Your task to perform on an android device: change the upload size in google photos Image 0: 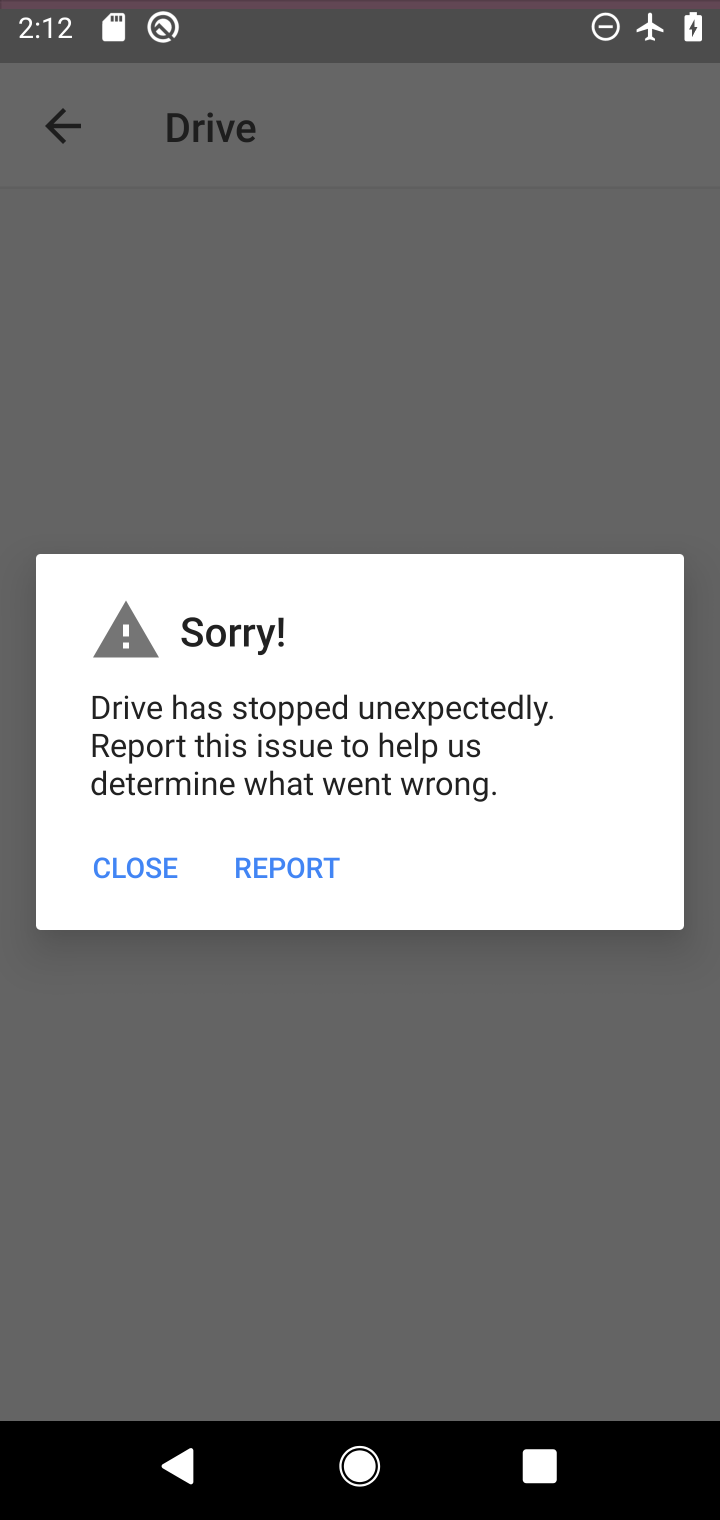
Step 0: press home button
Your task to perform on an android device: change the upload size in google photos Image 1: 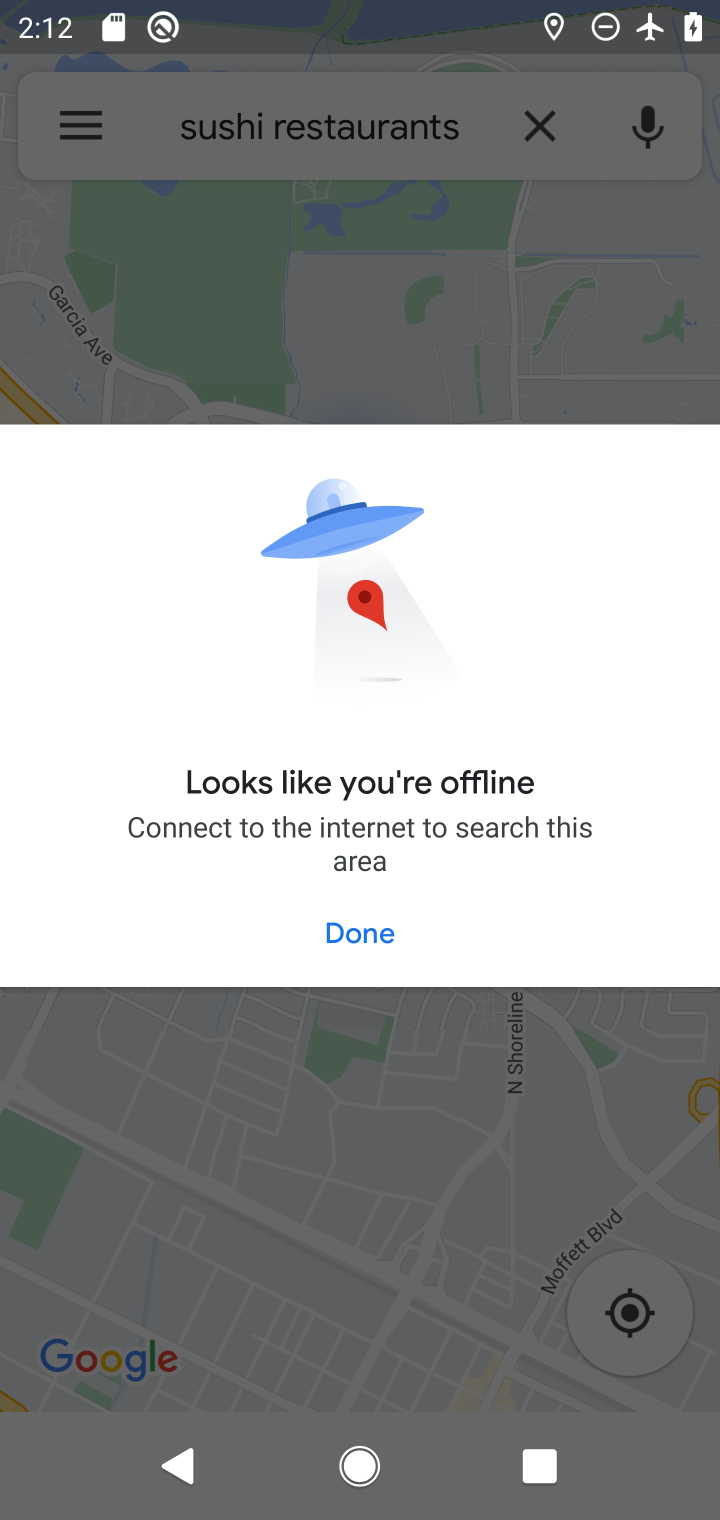
Step 1: press home button
Your task to perform on an android device: change the upload size in google photos Image 2: 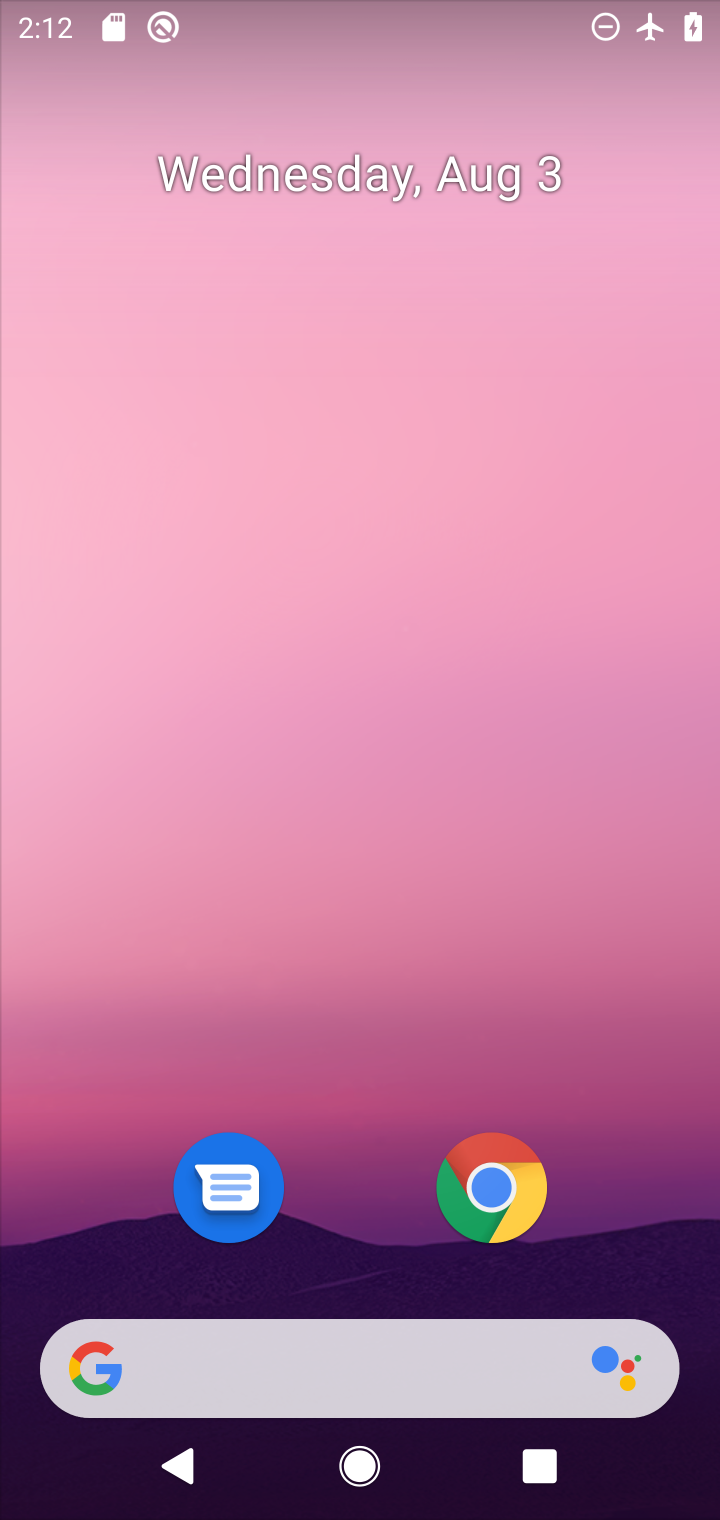
Step 2: drag from (381, 1136) to (441, 103)
Your task to perform on an android device: change the upload size in google photos Image 3: 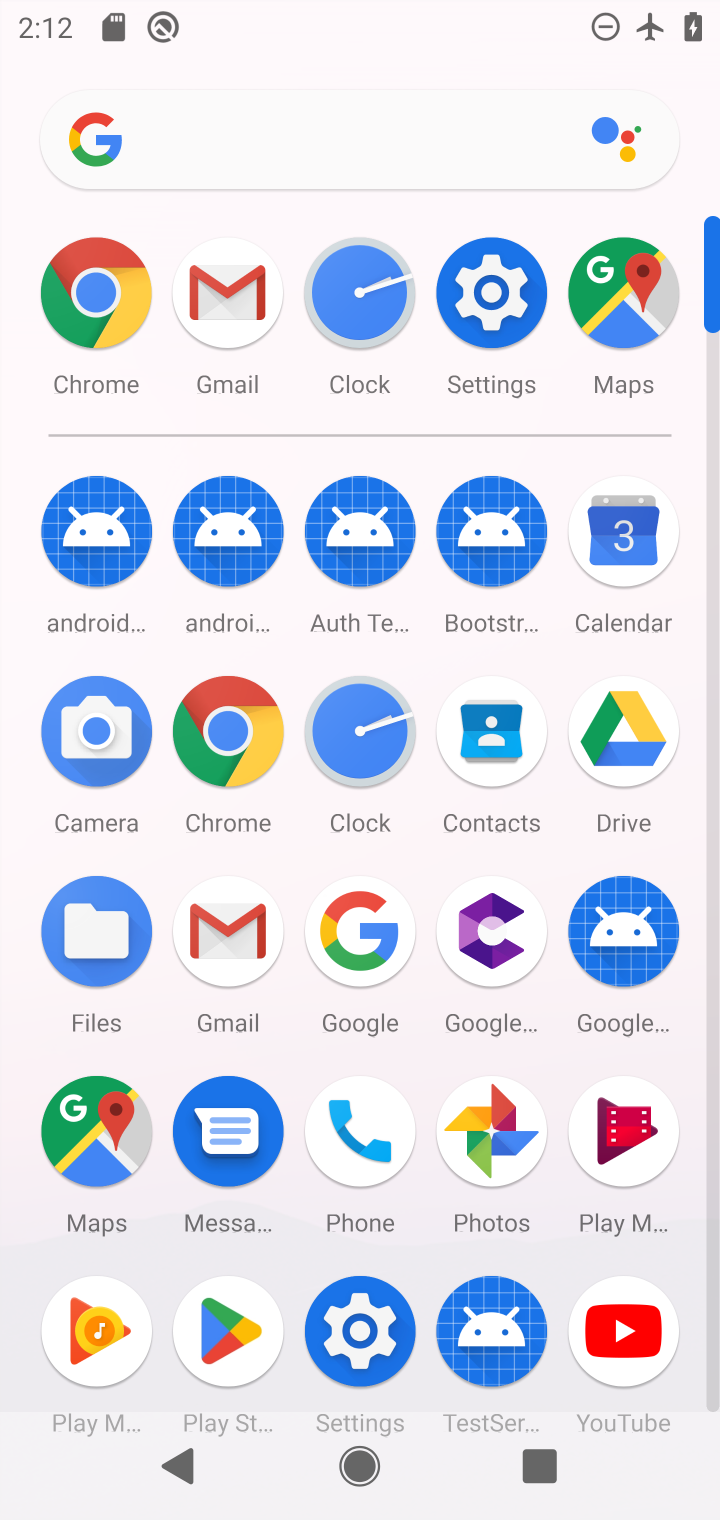
Step 3: click (477, 1124)
Your task to perform on an android device: change the upload size in google photos Image 4: 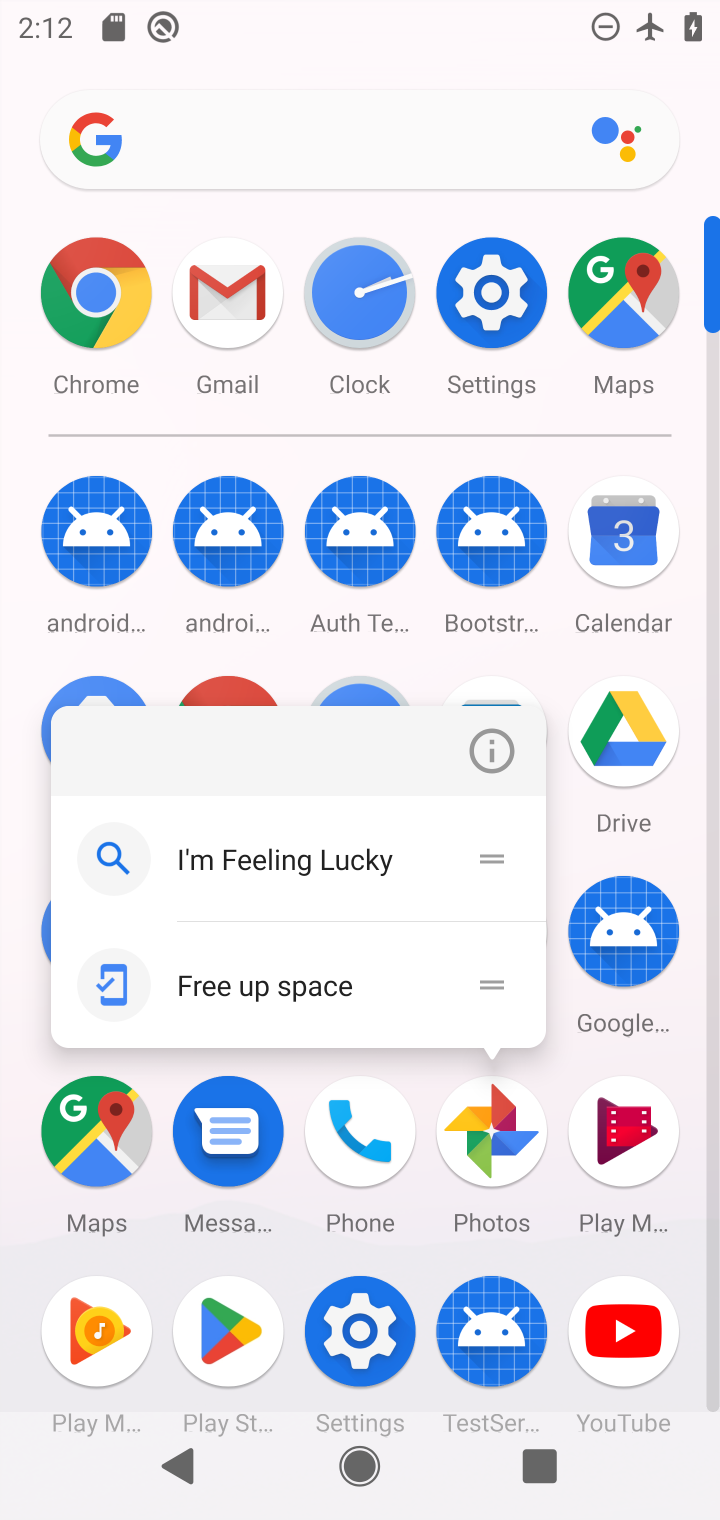
Step 4: click (477, 1114)
Your task to perform on an android device: change the upload size in google photos Image 5: 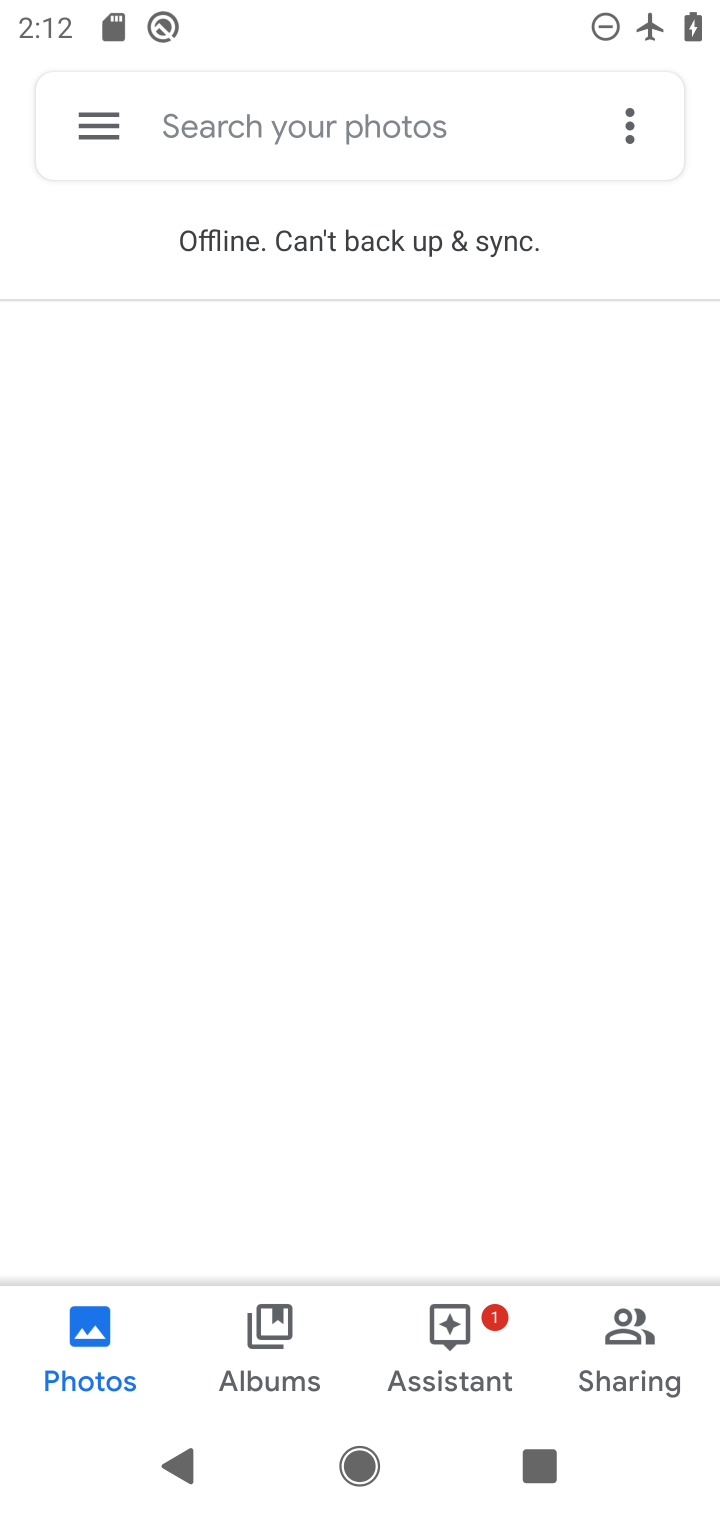
Step 5: click (91, 130)
Your task to perform on an android device: change the upload size in google photos Image 6: 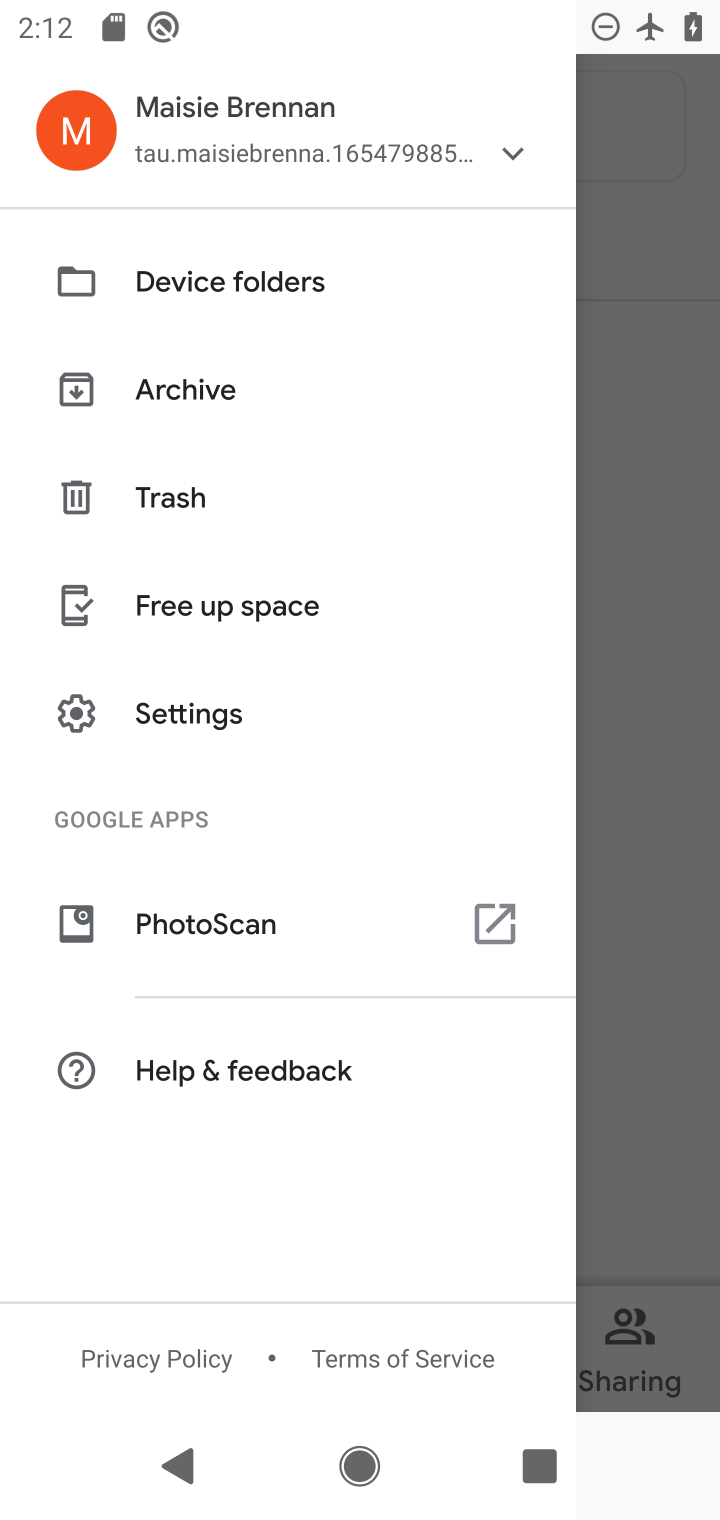
Step 6: click (190, 703)
Your task to perform on an android device: change the upload size in google photos Image 7: 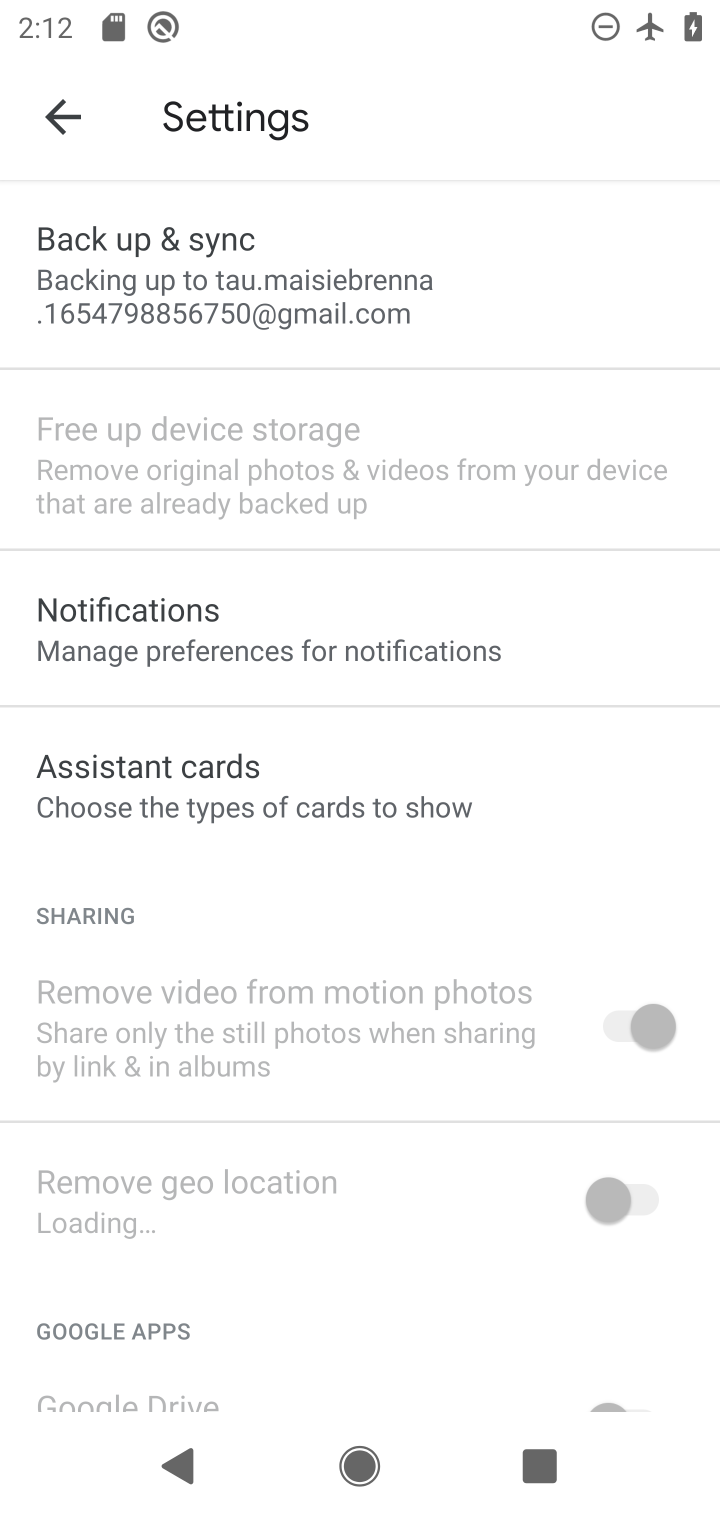
Step 7: drag from (371, 1115) to (415, 374)
Your task to perform on an android device: change the upload size in google photos Image 8: 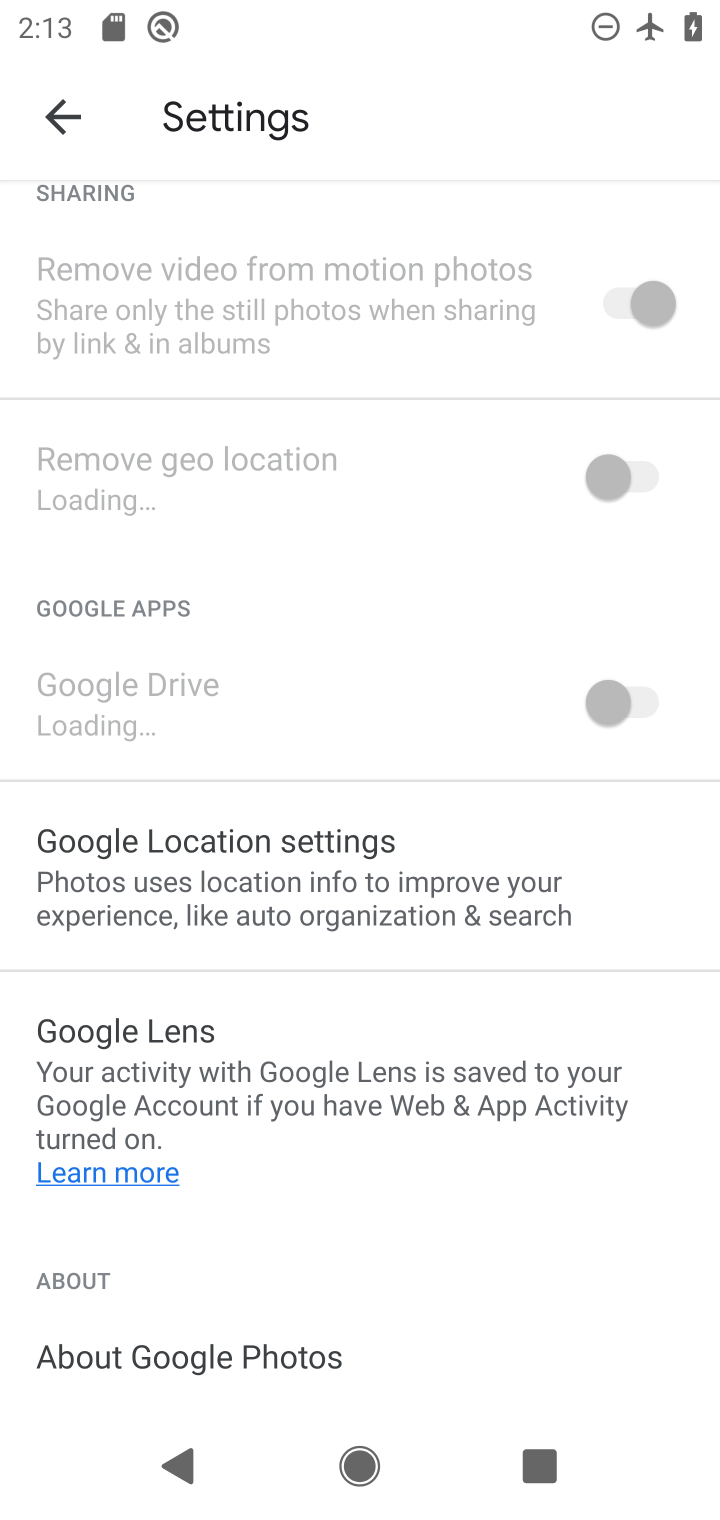
Step 8: drag from (395, 528) to (398, 1027)
Your task to perform on an android device: change the upload size in google photos Image 9: 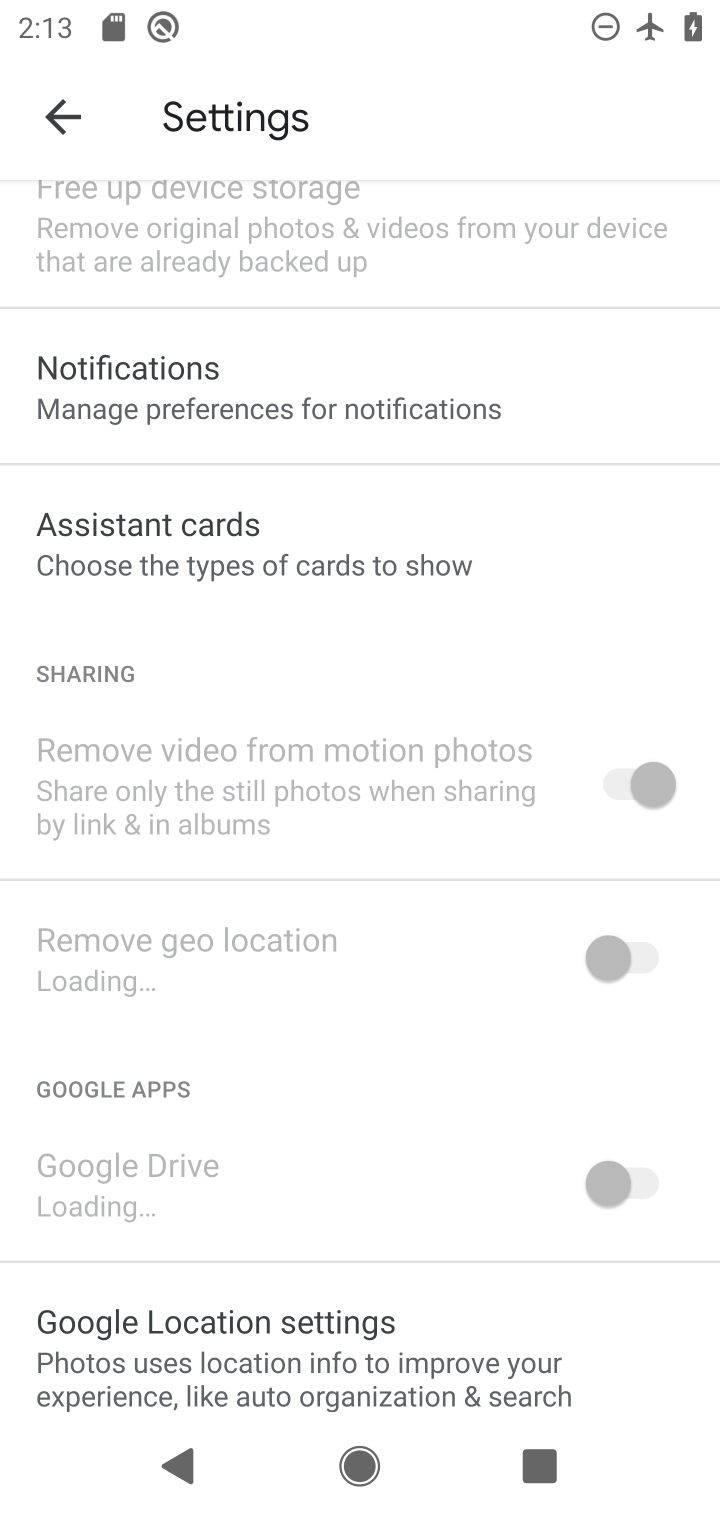
Step 9: drag from (330, 465) to (298, 1176)
Your task to perform on an android device: change the upload size in google photos Image 10: 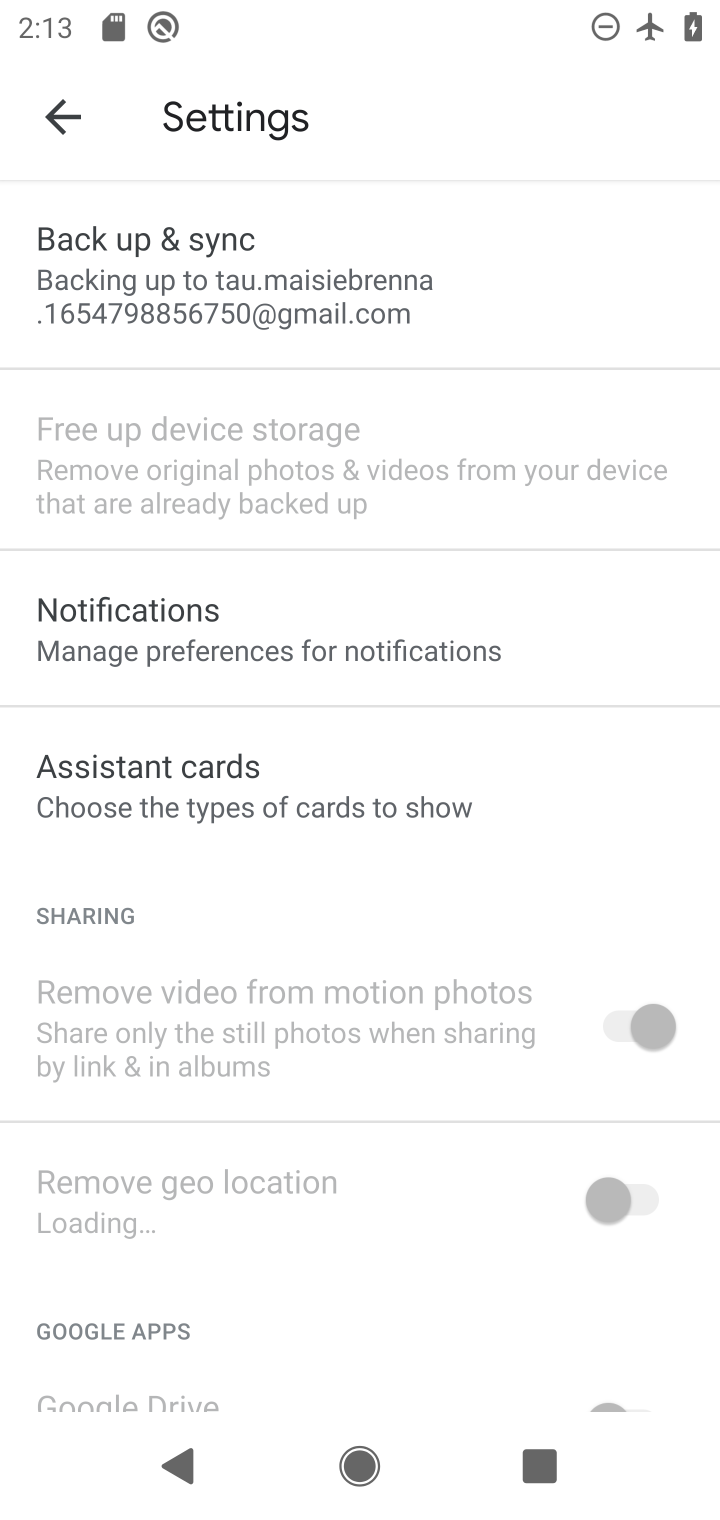
Step 10: drag from (346, 707) to (328, 811)
Your task to perform on an android device: change the upload size in google photos Image 11: 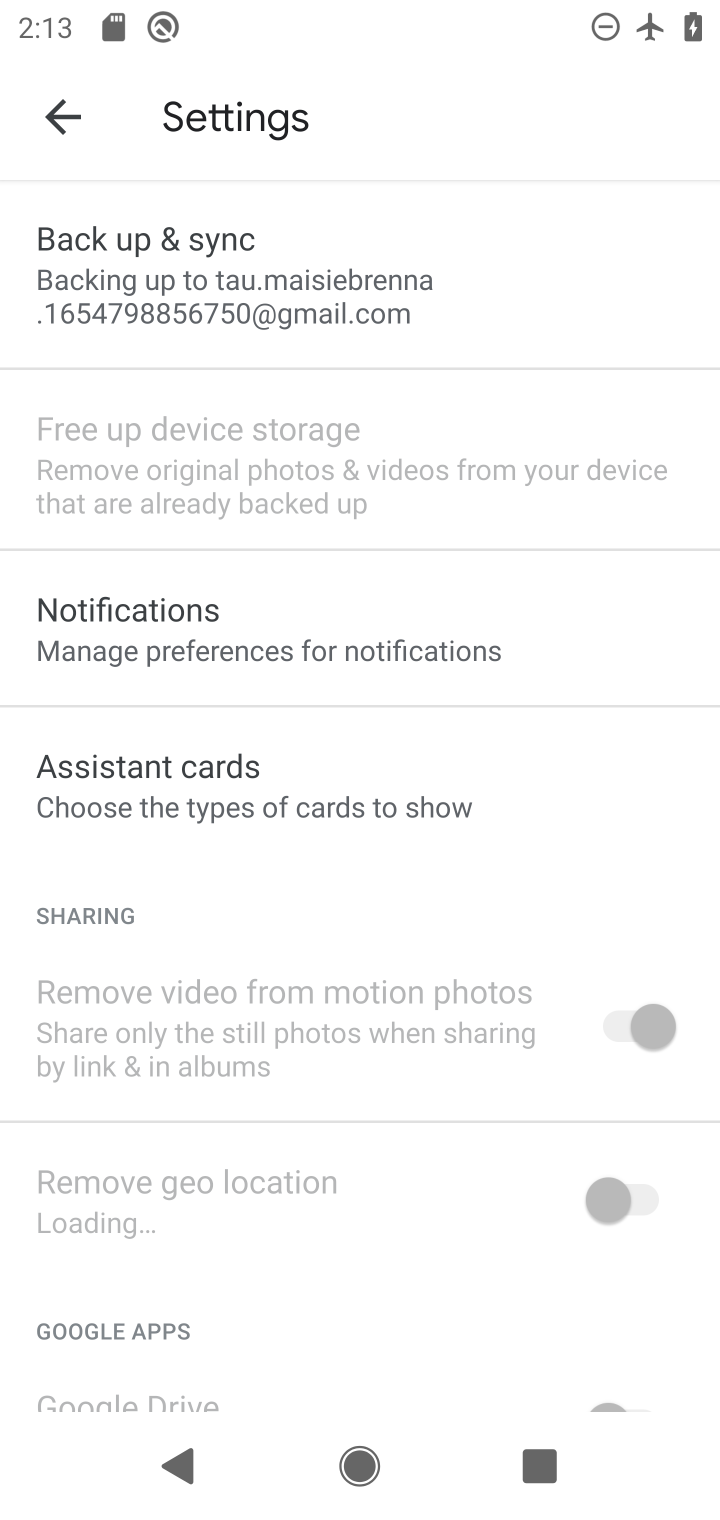
Step 11: click (266, 296)
Your task to perform on an android device: change the upload size in google photos Image 12: 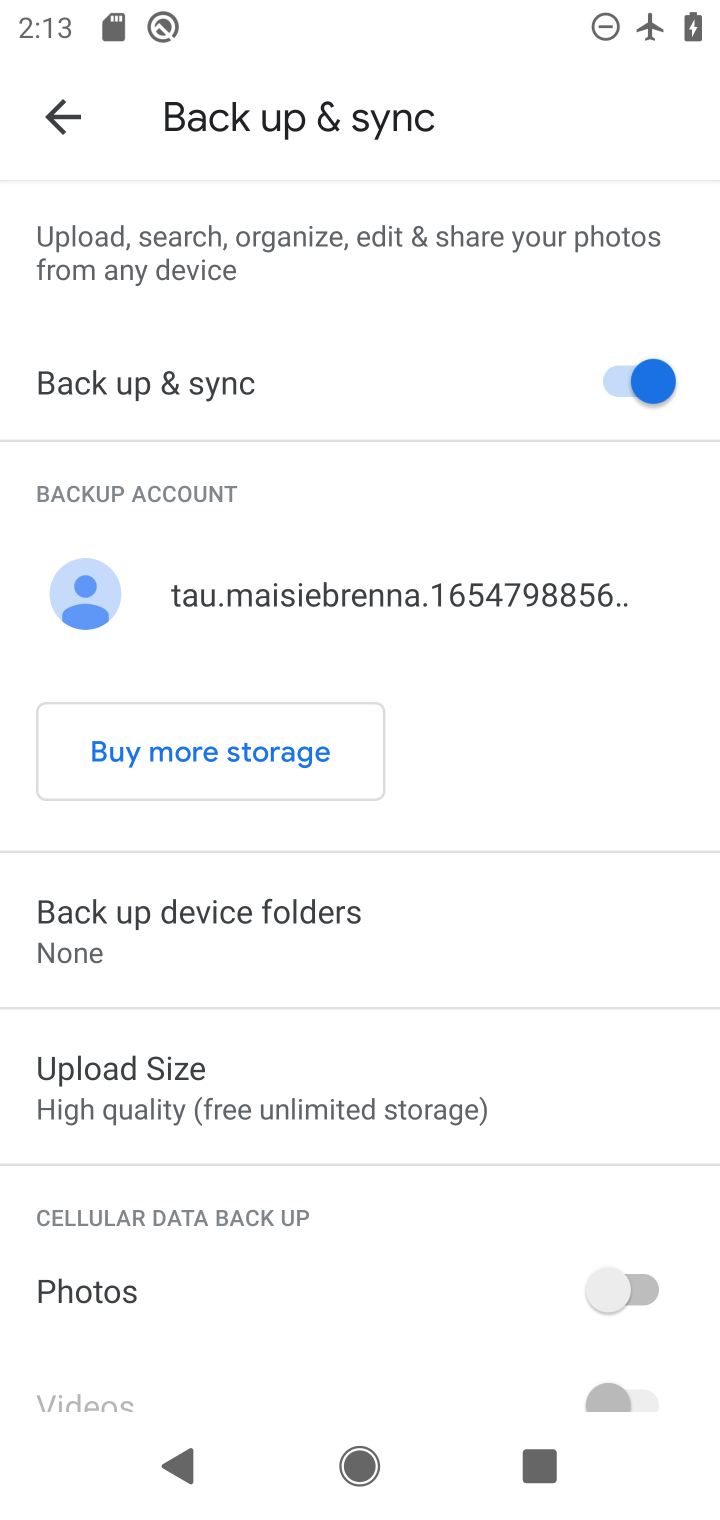
Step 12: click (372, 1108)
Your task to perform on an android device: change the upload size in google photos Image 13: 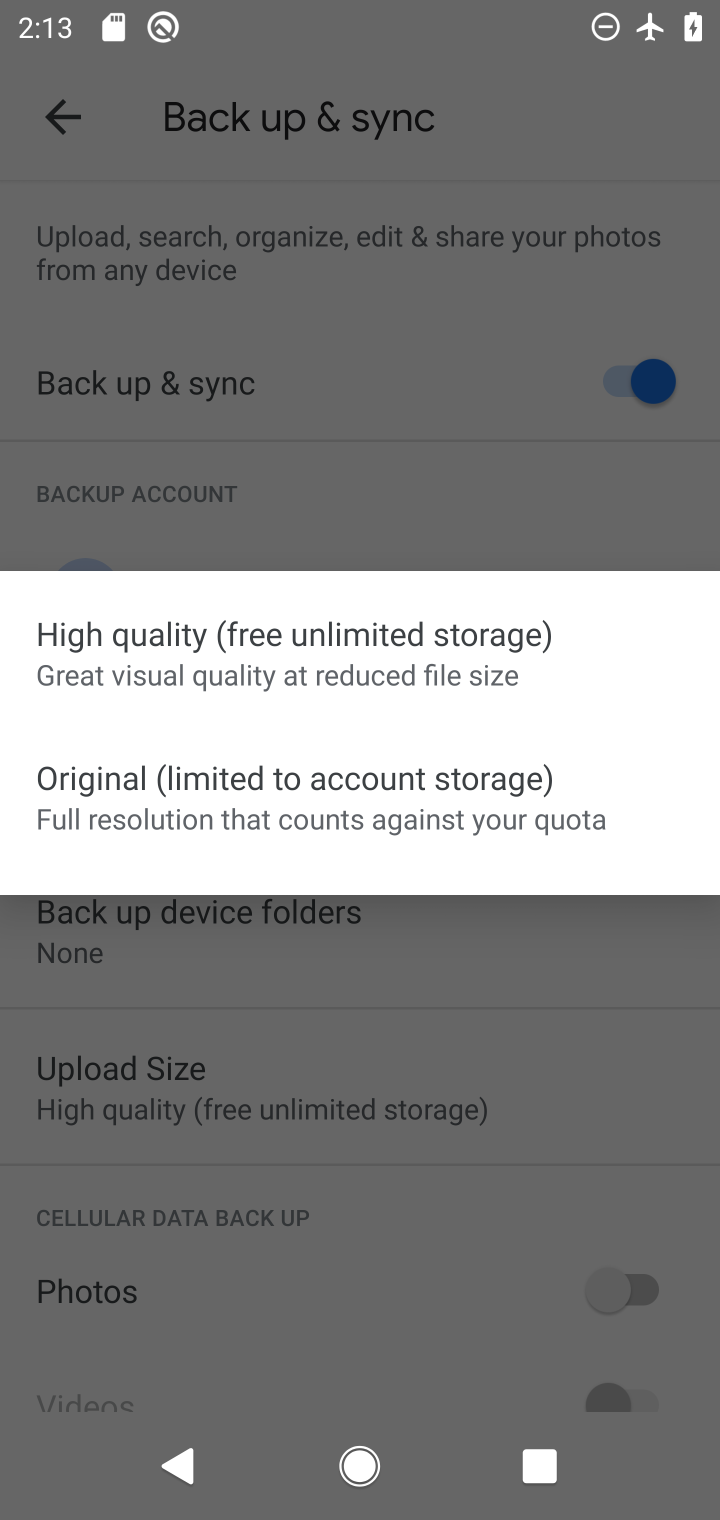
Step 13: click (344, 775)
Your task to perform on an android device: change the upload size in google photos Image 14: 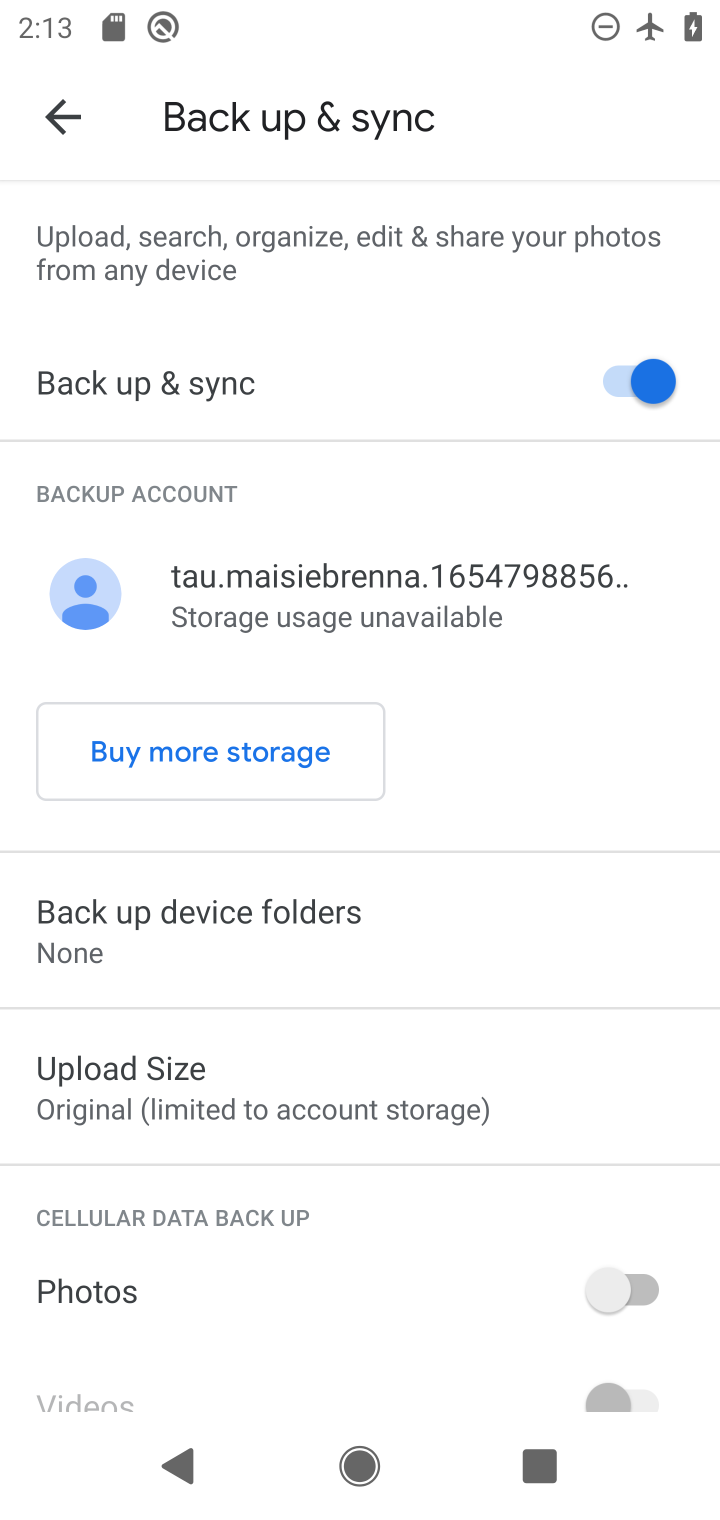
Step 14: task complete